Your task to perform on an android device: Check the weather Image 0: 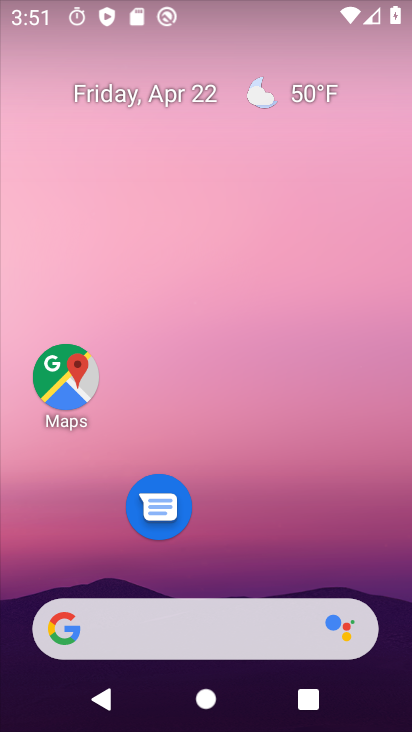
Step 0: click (286, 84)
Your task to perform on an android device: Check the weather Image 1: 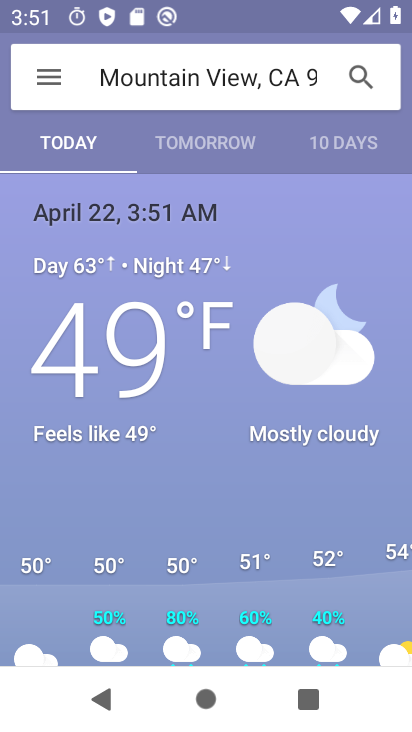
Step 1: task complete